Your task to perform on an android device: empty trash in google photos Image 0: 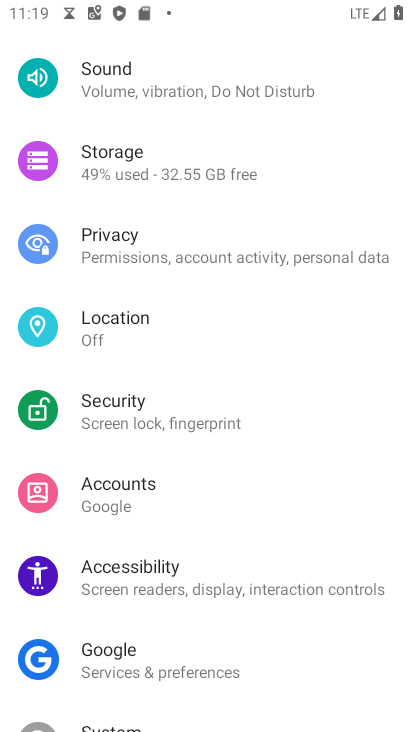
Step 0: press home button
Your task to perform on an android device: empty trash in google photos Image 1: 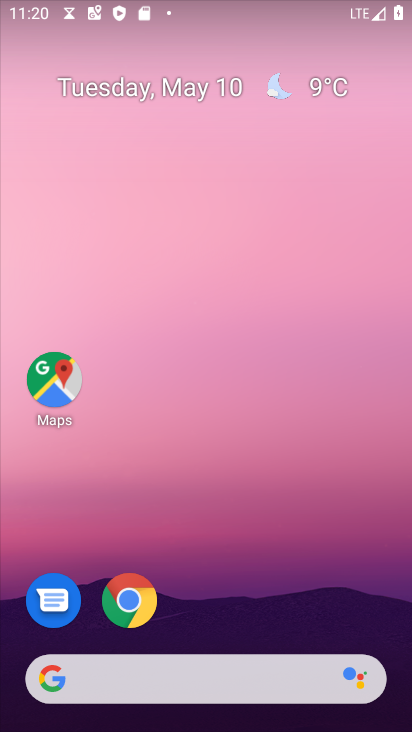
Step 1: drag from (248, 522) to (219, 55)
Your task to perform on an android device: empty trash in google photos Image 2: 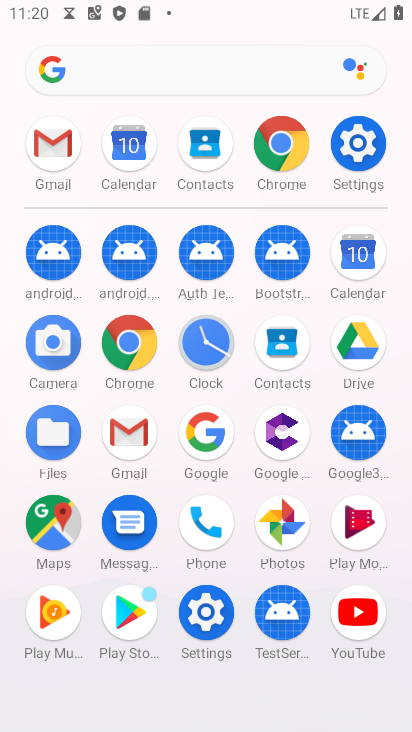
Step 2: click (274, 508)
Your task to perform on an android device: empty trash in google photos Image 3: 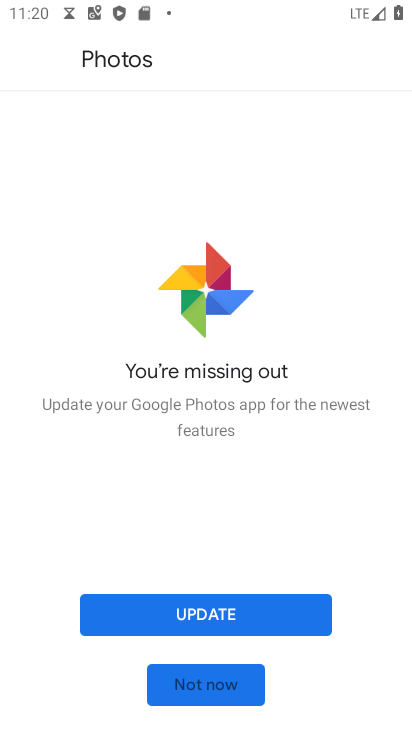
Step 3: click (223, 617)
Your task to perform on an android device: empty trash in google photos Image 4: 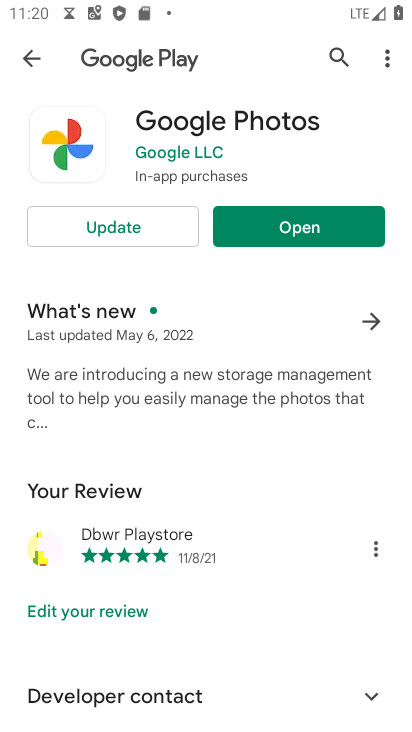
Step 4: click (138, 226)
Your task to perform on an android device: empty trash in google photos Image 5: 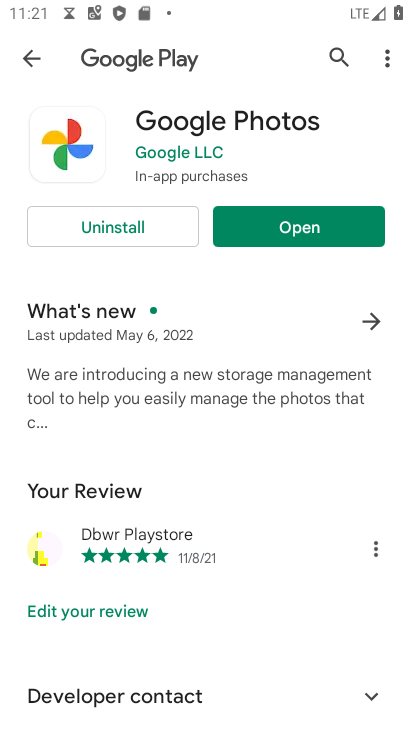
Step 5: click (256, 216)
Your task to perform on an android device: empty trash in google photos Image 6: 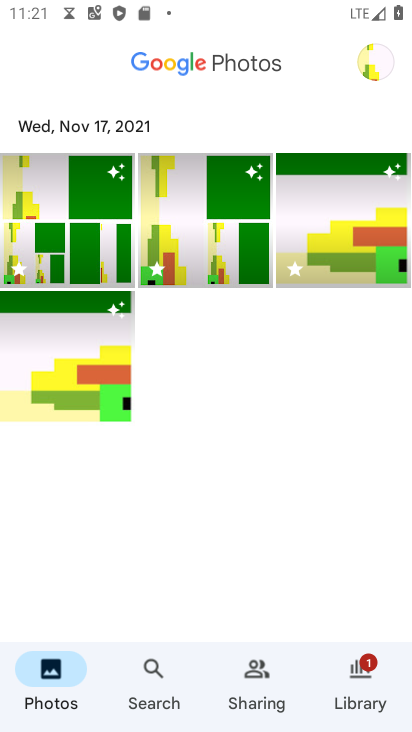
Step 6: click (368, 691)
Your task to perform on an android device: empty trash in google photos Image 7: 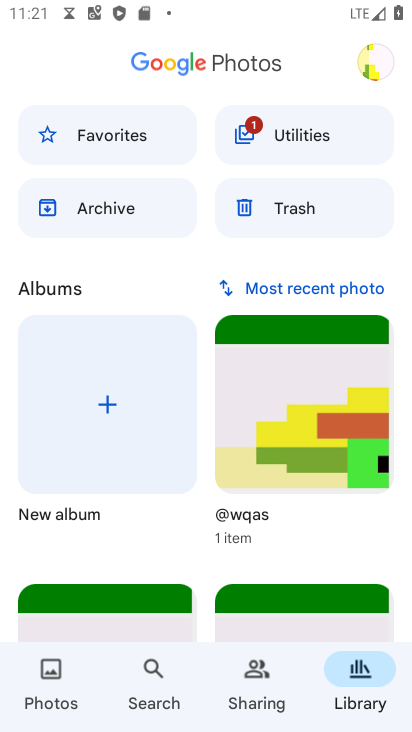
Step 7: click (275, 197)
Your task to perform on an android device: empty trash in google photos Image 8: 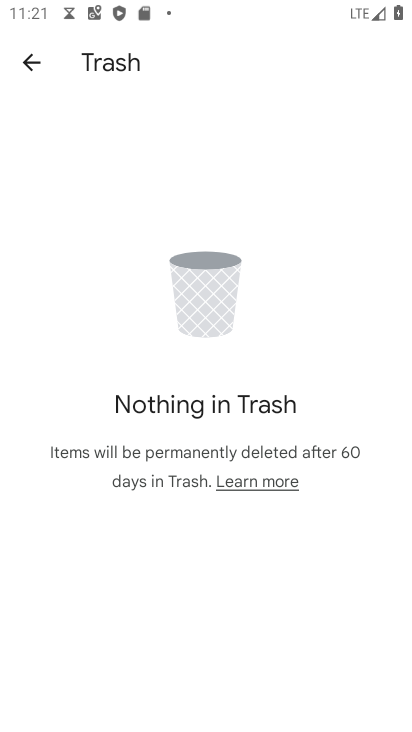
Step 8: task complete